Your task to perform on an android device: What's the weather today? Image 0: 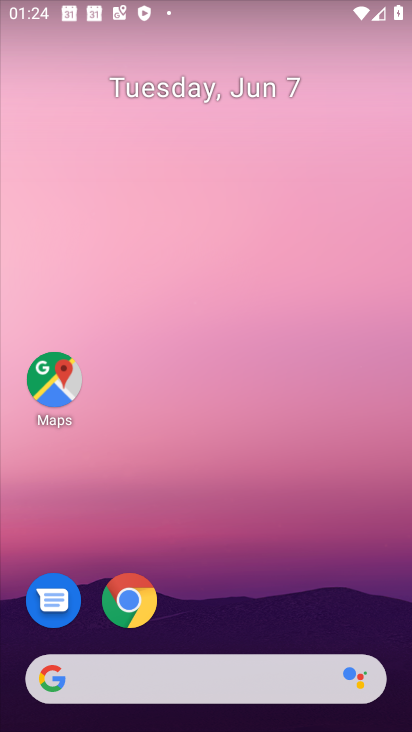
Step 0: drag from (237, 731) to (198, 92)
Your task to perform on an android device: What's the weather today? Image 1: 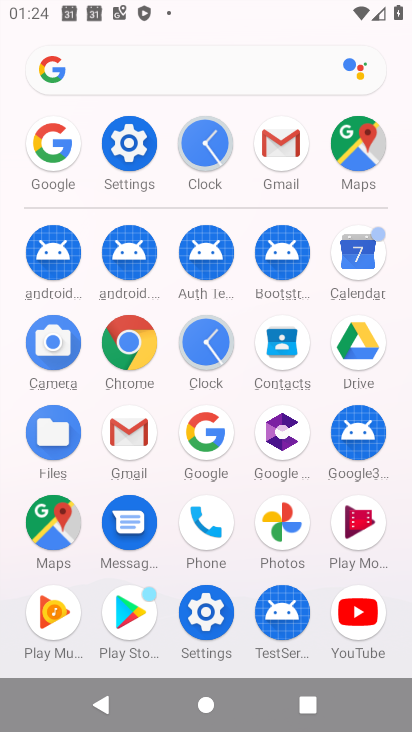
Step 1: click (202, 431)
Your task to perform on an android device: What's the weather today? Image 2: 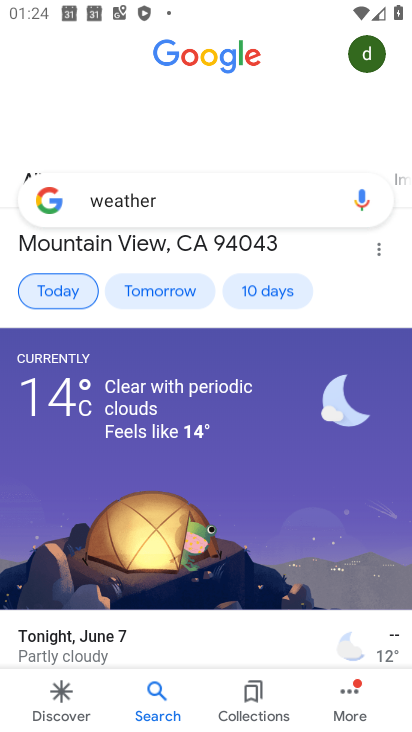
Step 2: click (66, 290)
Your task to perform on an android device: What's the weather today? Image 3: 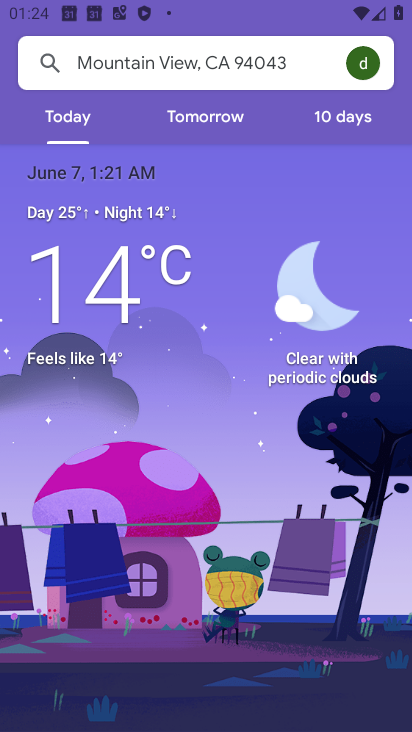
Step 3: task complete